Your task to perform on an android device: clear history in the chrome app Image 0: 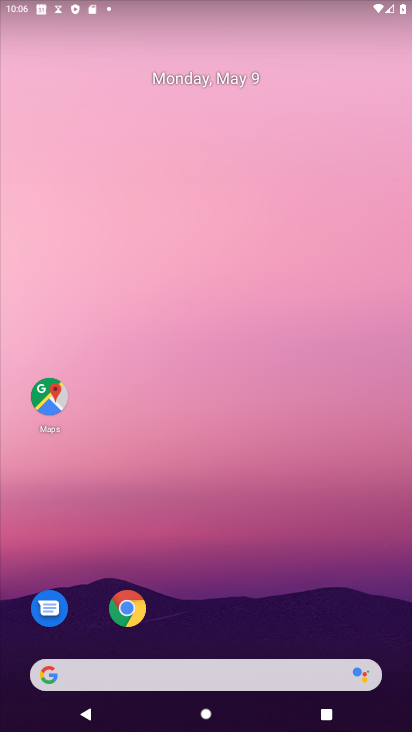
Step 0: click (138, 613)
Your task to perform on an android device: clear history in the chrome app Image 1: 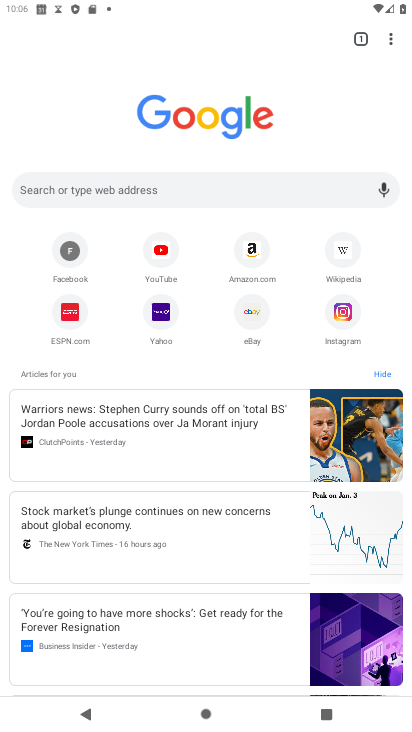
Step 1: click (391, 37)
Your task to perform on an android device: clear history in the chrome app Image 2: 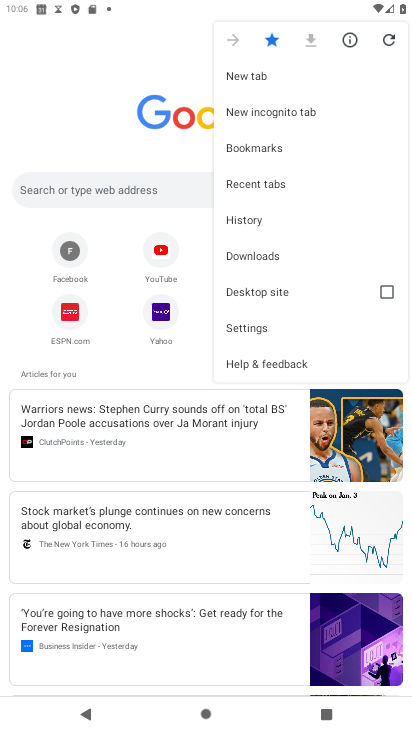
Step 2: click (254, 216)
Your task to perform on an android device: clear history in the chrome app Image 3: 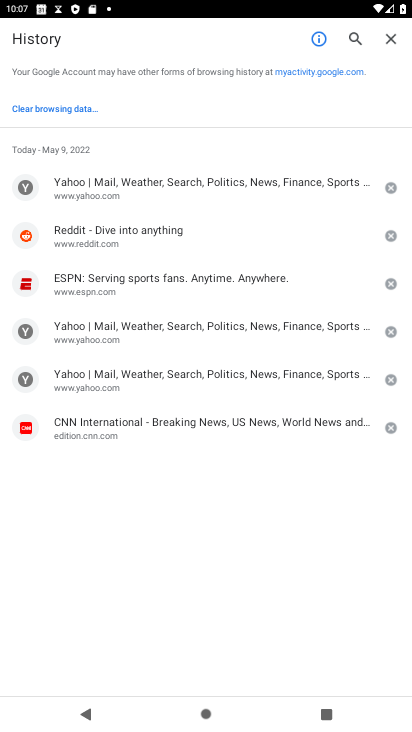
Step 3: task complete